Your task to perform on an android device: What's the weather going to be tomorrow? Image 0: 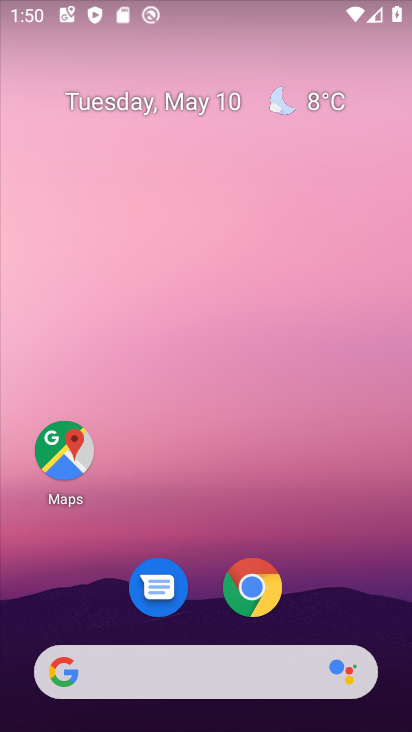
Step 0: click (327, 91)
Your task to perform on an android device: What's the weather going to be tomorrow? Image 1: 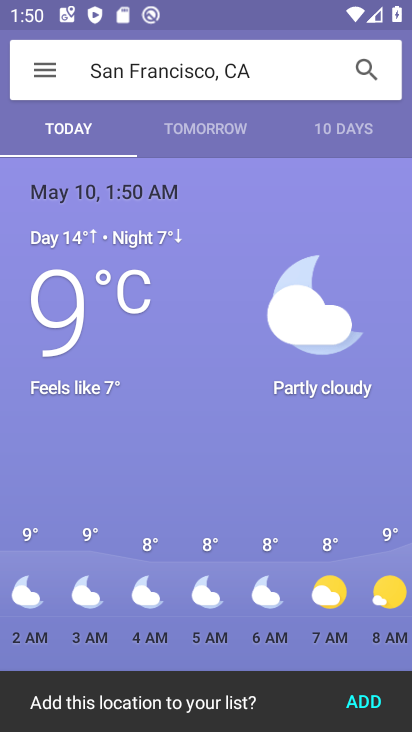
Step 1: click (193, 134)
Your task to perform on an android device: What's the weather going to be tomorrow? Image 2: 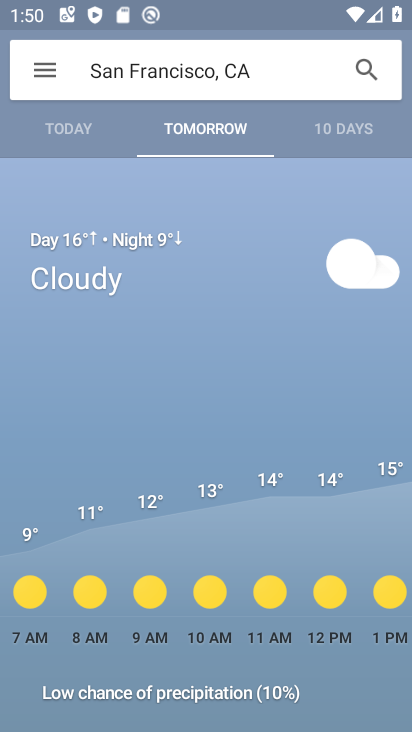
Step 2: task complete